Your task to perform on an android device: allow cookies in the chrome app Image 0: 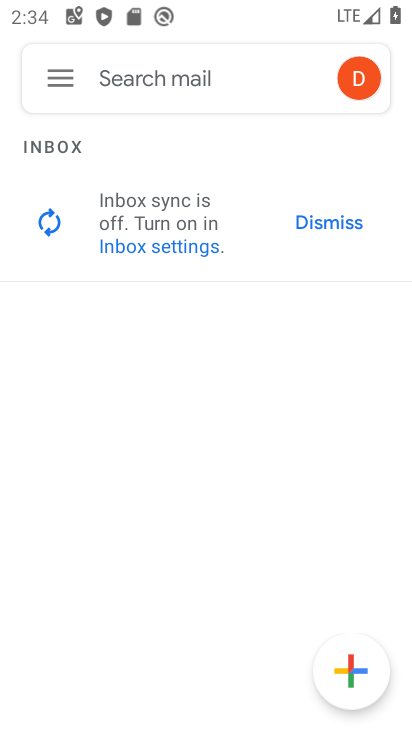
Step 0: press home button
Your task to perform on an android device: allow cookies in the chrome app Image 1: 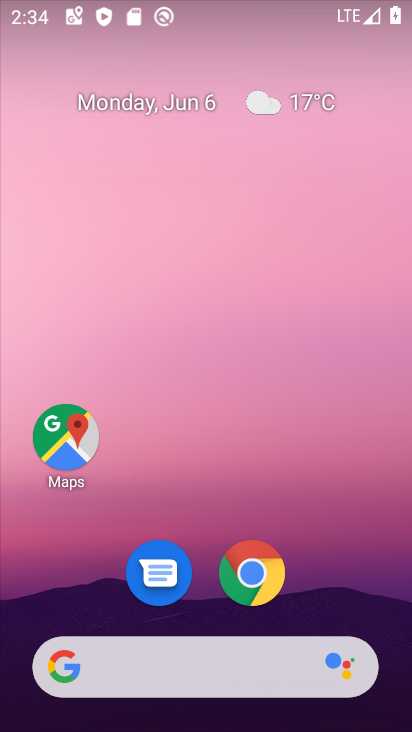
Step 1: drag from (370, 548) to (381, 292)
Your task to perform on an android device: allow cookies in the chrome app Image 2: 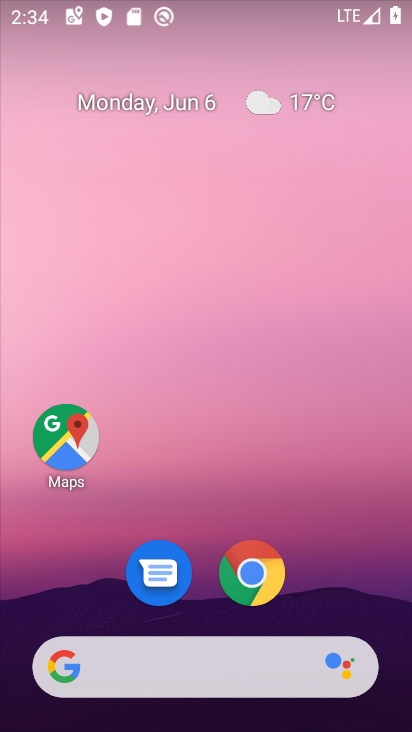
Step 2: drag from (356, 538) to (385, 117)
Your task to perform on an android device: allow cookies in the chrome app Image 3: 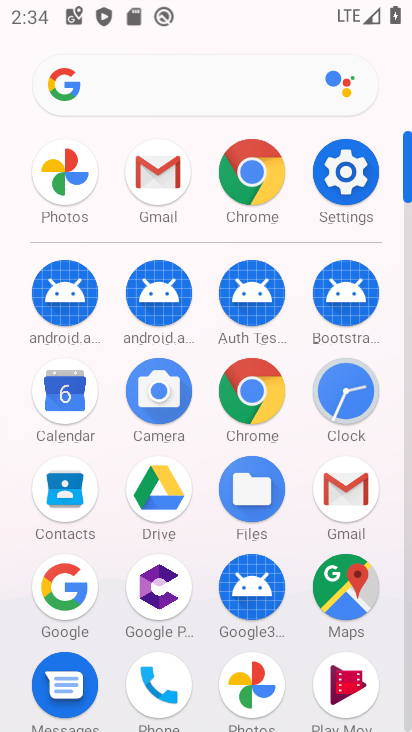
Step 3: click (265, 394)
Your task to perform on an android device: allow cookies in the chrome app Image 4: 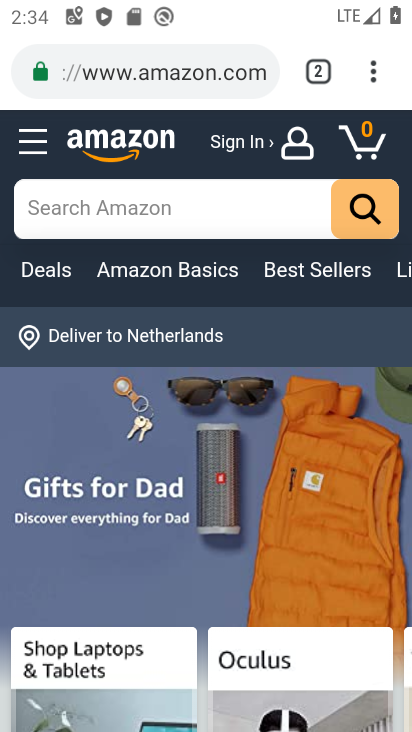
Step 4: click (373, 74)
Your task to perform on an android device: allow cookies in the chrome app Image 5: 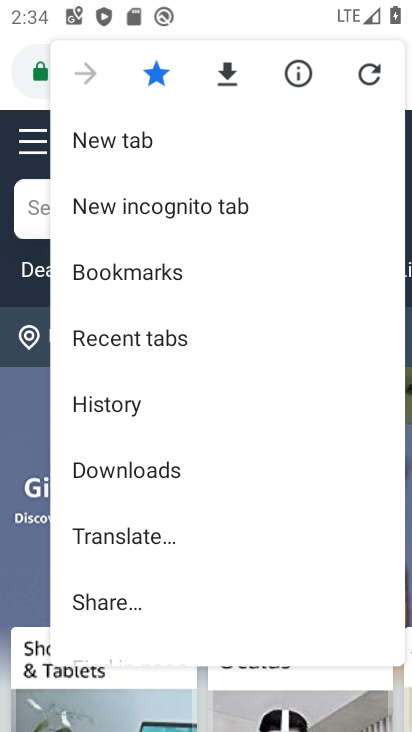
Step 5: drag from (307, 483) to (348, 346)
Your task to perform on an android device: allow cookies in the chrome app Image 6: 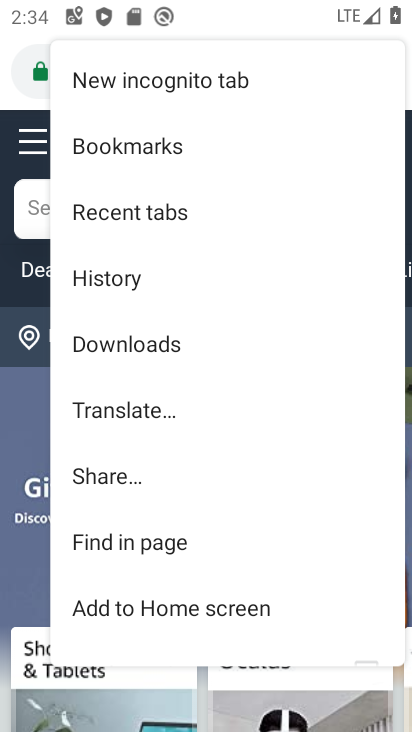
Step 6: drag from (339, 487) to (359, 350)
Your task to perform on an android device: allow cookies in the chrome app Image 7: 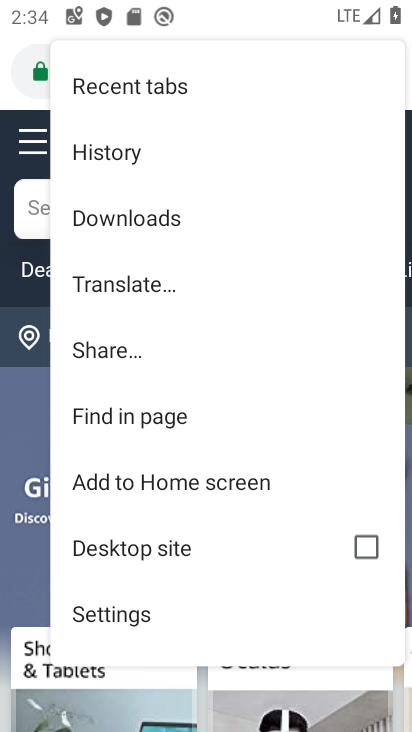
Step 7: drag from (310, 537) to (300, 379)
Your task to perform on an android device: allow cookies in the chrome app Image 8: 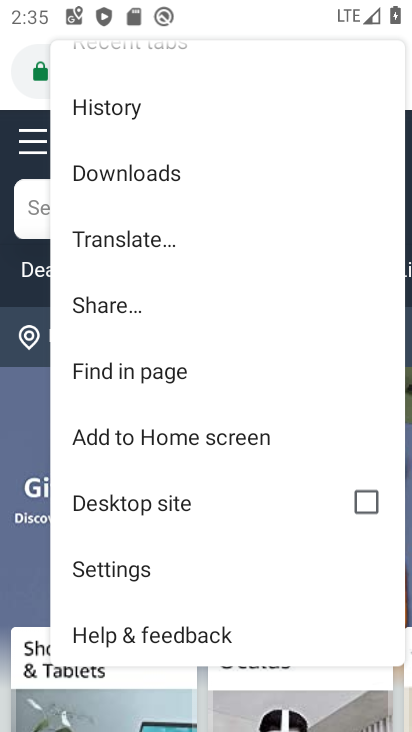
Step 8: click (172, 571)
Your task to perform on an android device: allow cookies in the chrome app Image 9: 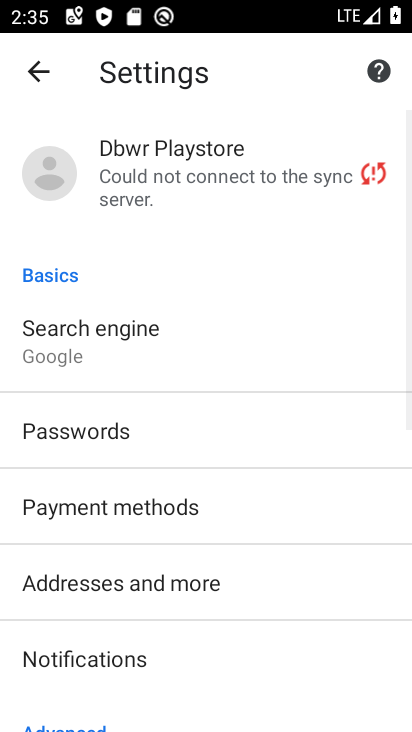
Step 9: drag from (329, 539) to (355, 443)
Your task to perform on an android device: allow cookies in the chrome app Image 10: 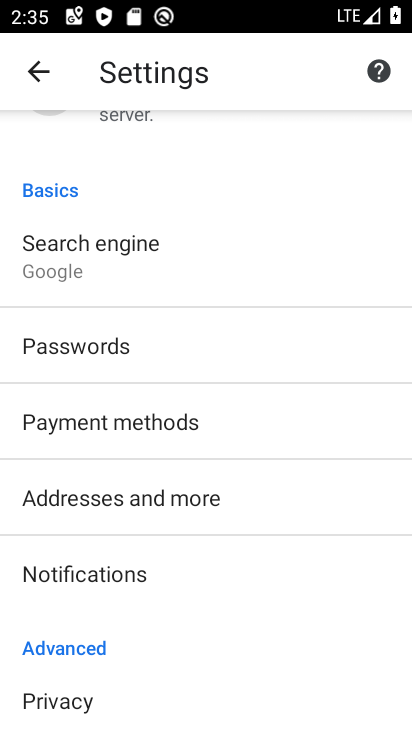
Step 10: drag from (348, 572) to (378, 469)
Your task to perform on an android device: allow cookies in the chrome app Image 11: 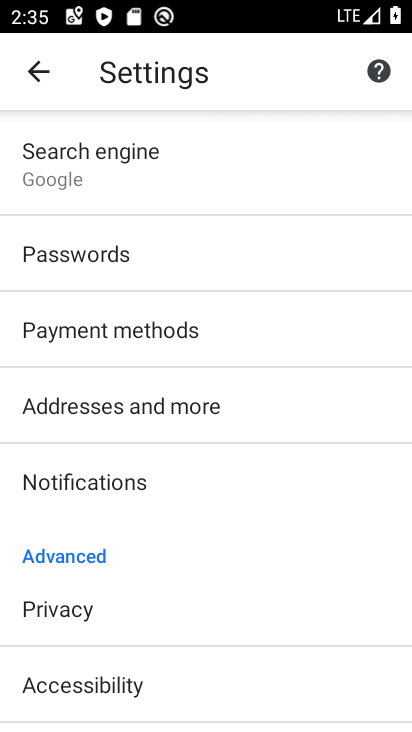
Step 11: drag from (328, 583) to (298, 387)
Your task to perform on an android device: allow cookies in the chrome app Image 12: 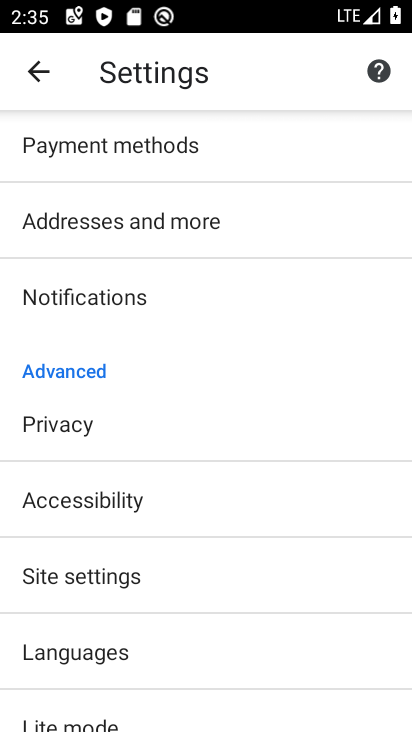
Step 12: drag from (294, 596) to (326, 353)
Your task to perform on an android device: allow cookies in the chrome app Image 13: 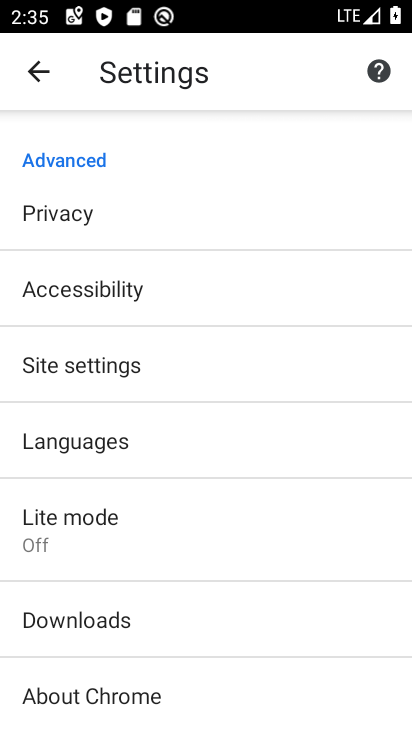
Step 13: click (252, 369)
Your task to perform on an android device: allow cookies in the chrome app Image 14: 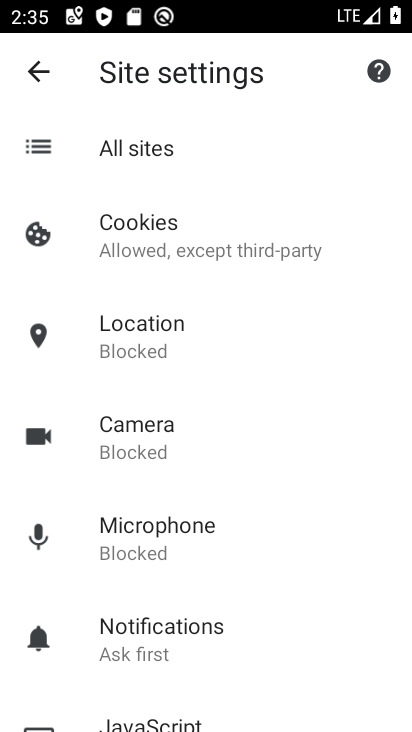
Step 14: click (302, 256)
Your task to perform on an android device: allow cookies in the chrome app Image 15: 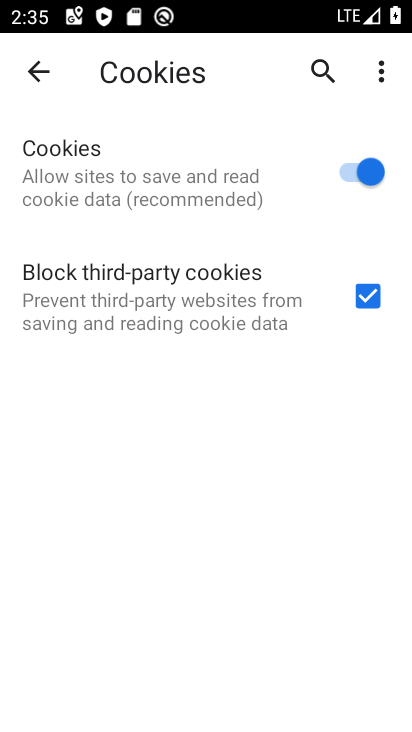
Step 15: task complete